Your task to perform on an android device: Search for apple airpods pro on amazon.com, select the first entry, add it to the cart, then select checkout. Image 0: 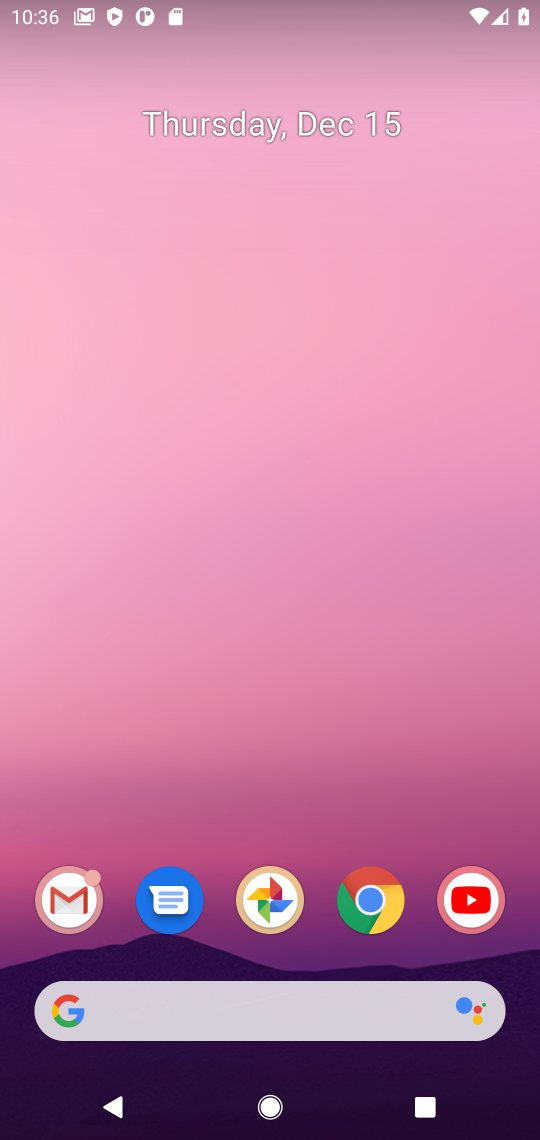
Step 0: click (371, 911)
Your task to perform on an android device: Search for apple airpods pro on amazon.com, select the first entry, add it to the cart, then select checkout. Image 1: 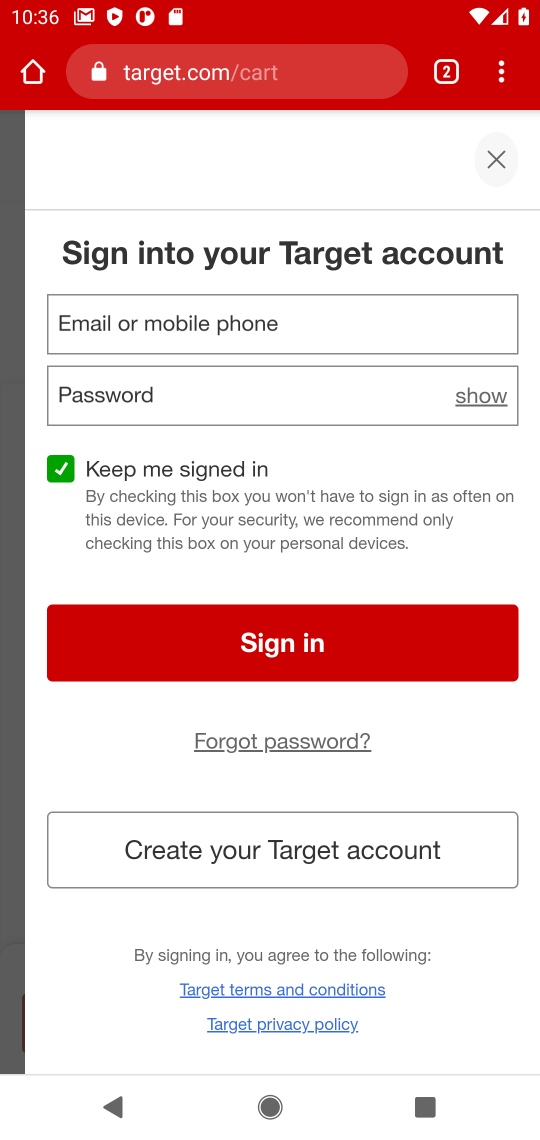
Step 1: click (241, 79)
Your task to perform on an android device: Search for apple airpods pro on amazon.com, select the first entry, add it to the cart, then select checkout. Image 2: 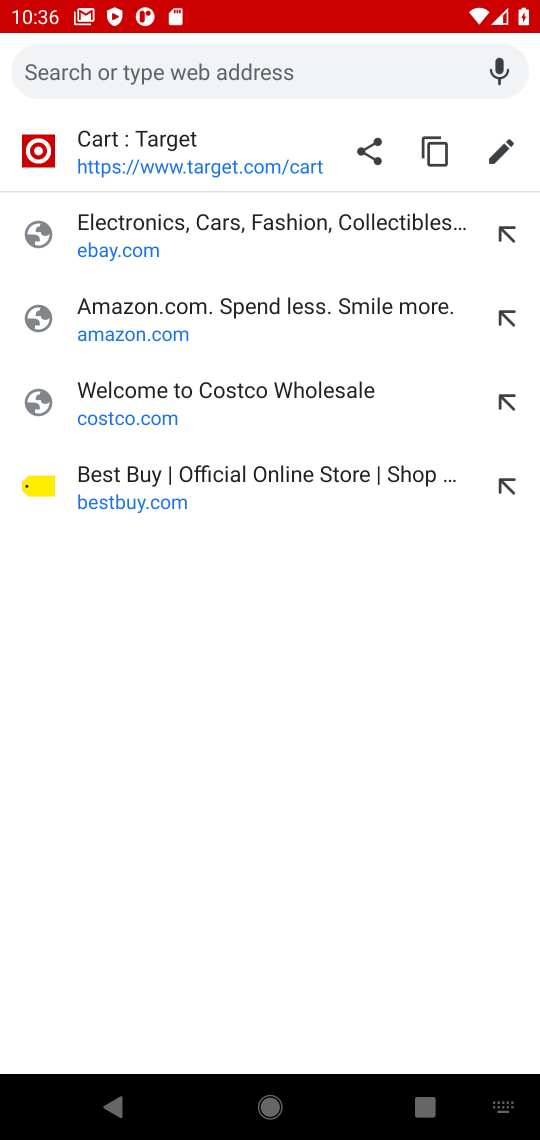
Step 2: type "apple airpods pro"
Your task to perform on an android device: Search for apple airpods pro on amazon.com, select the first entry, add it to the cart, then select checkout. Image 3: 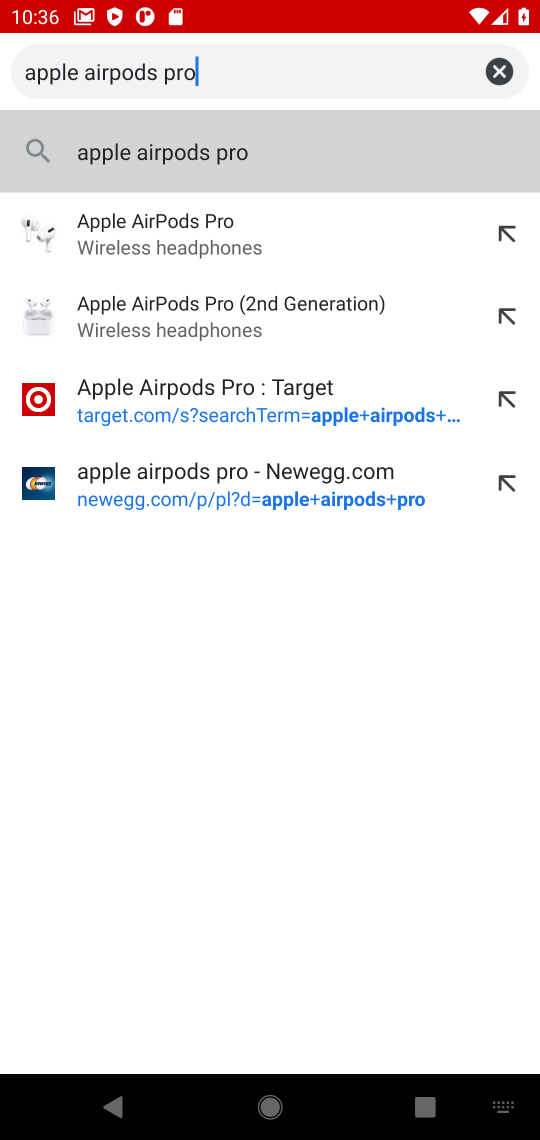
Step 3: click (499, 81)
Your task to perform on an android device: Search for apple airpods pro on amazon.com, select the first entry, add it to the cart, then select checkout. Image 4: 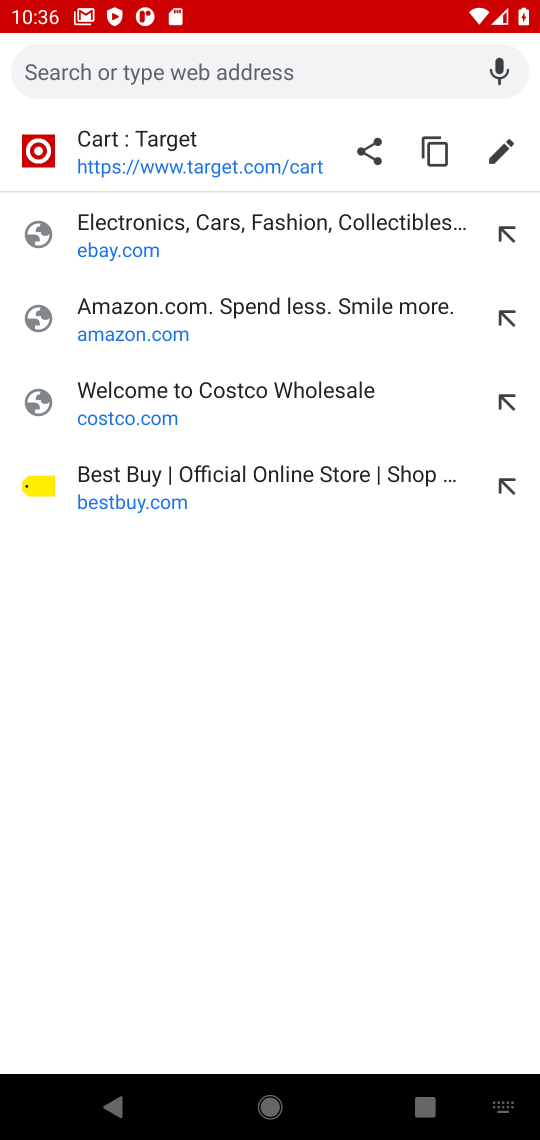
Step 4: type "amazon.com"
Your task to perform on an android device: Search for apple airpods pro on amazon.com, select the first entry, add it to the cart, then select checkout. Image 5: 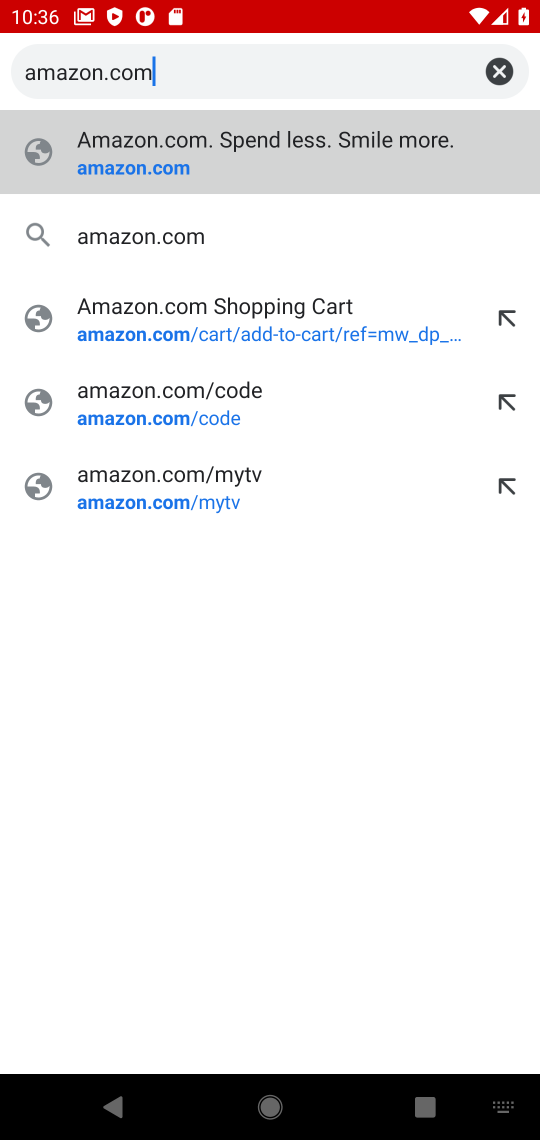
Step 5: press enter
Your task to perform on an android device: Search for apple airpods pro on amazon.com, select the first entry, add it to the cart, then select checkout. Image 6: 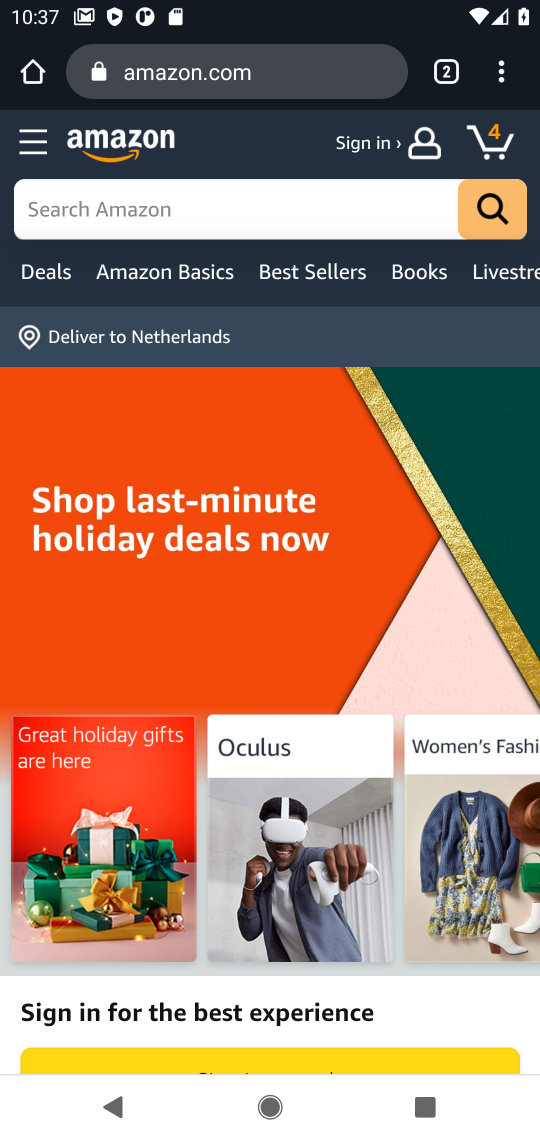
Step 6: click (269, 201)
Your task to perform on an android device: Search for apple airpods pro on amazon.com, select the first entry, add it to the cart, then select checkout. Image 7: 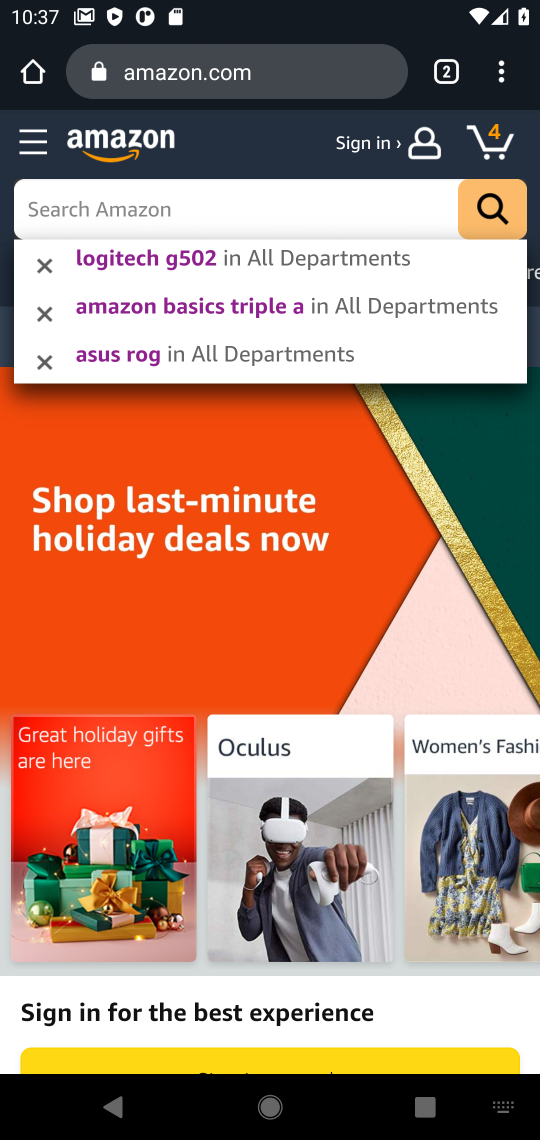
Step 7: type "apple airpods pro"
Your task to perform on an android device: Search for apple airpods pro on amazon.com, select the first entry, add it to the cart, then select checkout. Image 8: 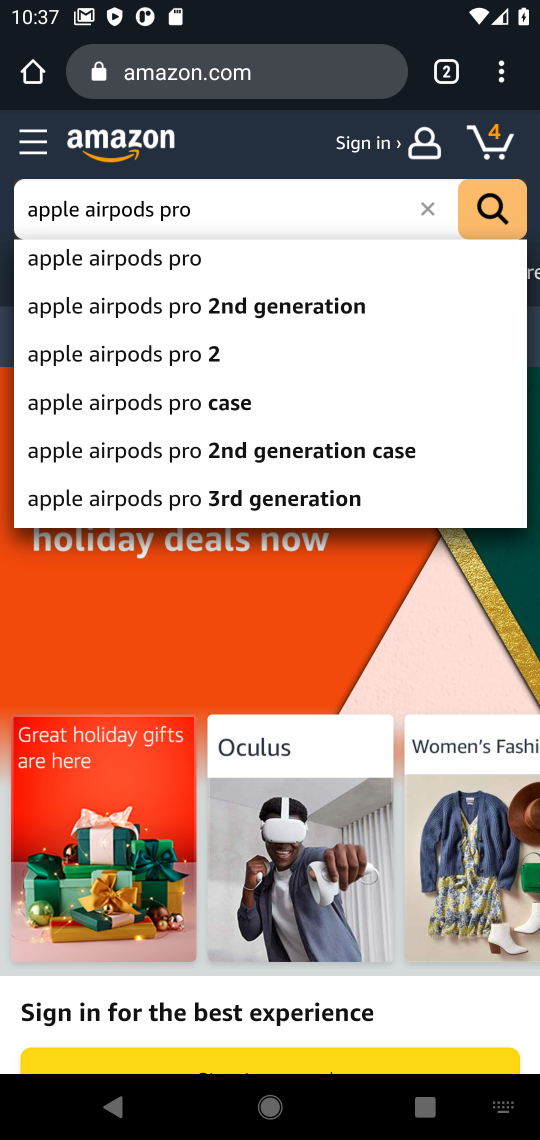
Step 8: click (509, 227)
Your task to perform on an android device: Search for apple airpods pro on amazon.com, select the first entry, add it to the cart, then select checkout. Image 9: 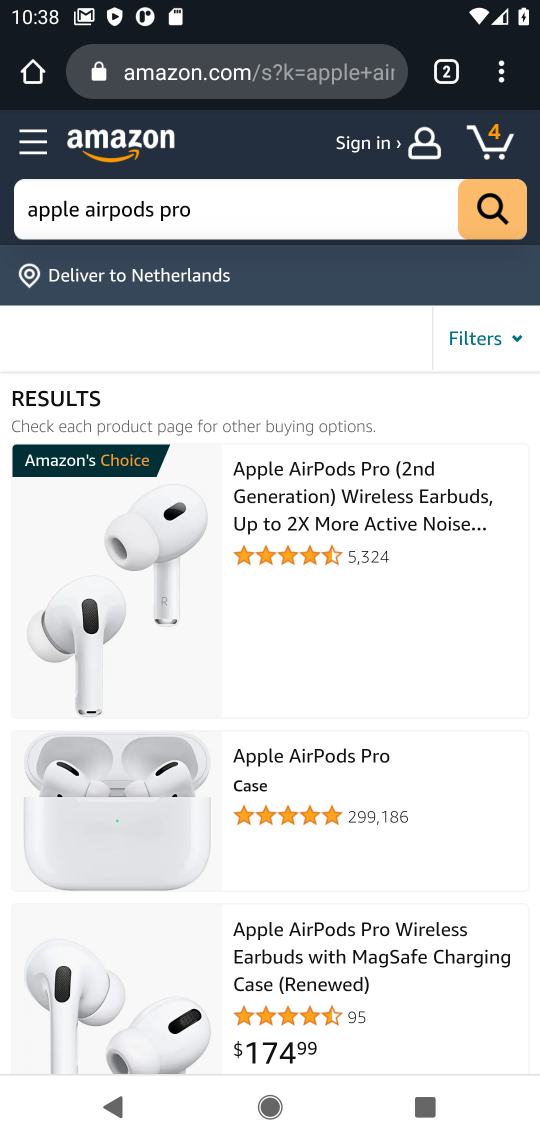
Step 9: click (206, 562)
Your task to perform on an android device: Search for apple airpods pro on amazon.com, select the first entry, add it to the cart, then select checkout. Image 10: 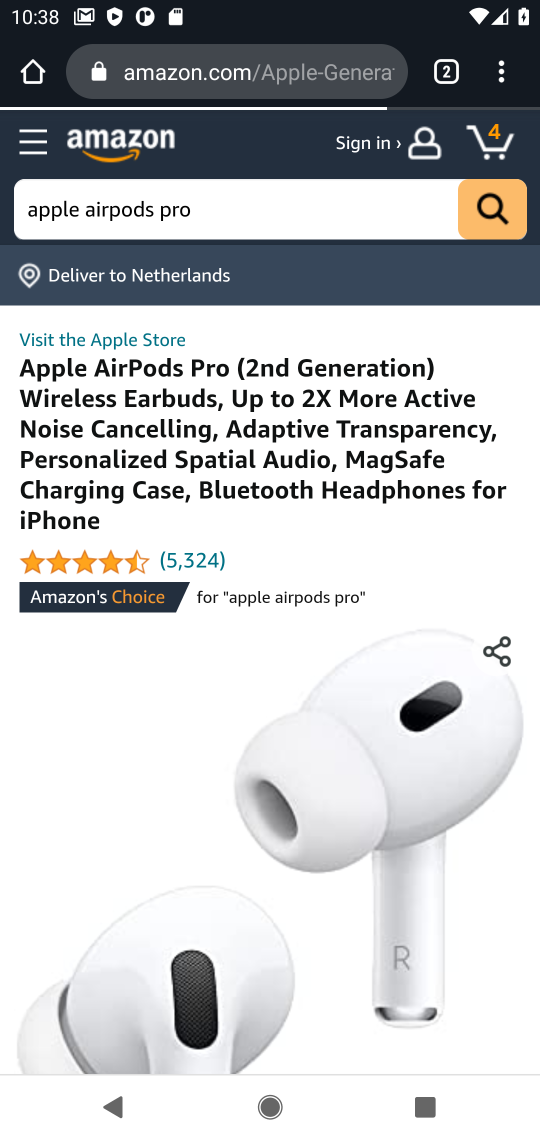
Step 10: task complete